Your task to perform on an android device: Show the shopping cart on bestbuy. Image 0: 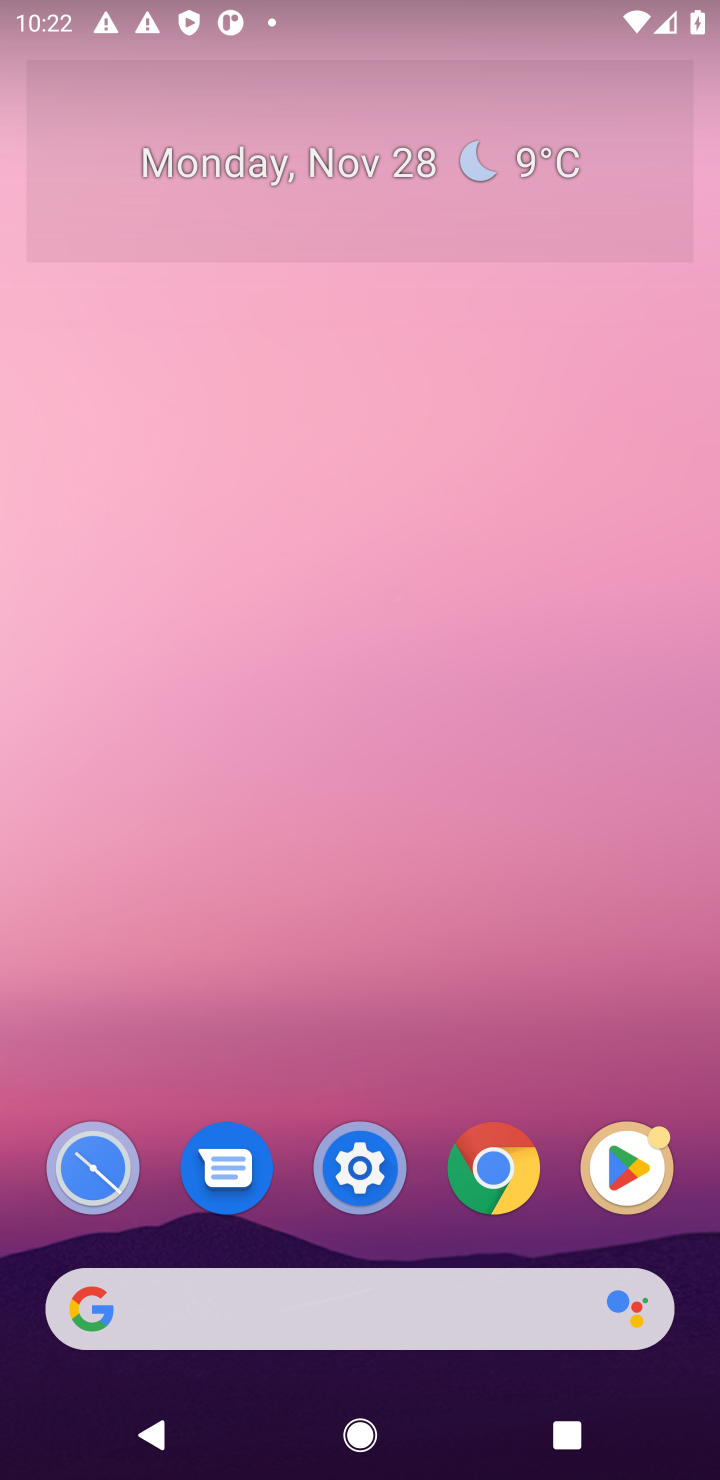
Step 0: click (445, 1349)
Your task to perform on an android device: Show the shopping cart on bestbuy. Image 1: 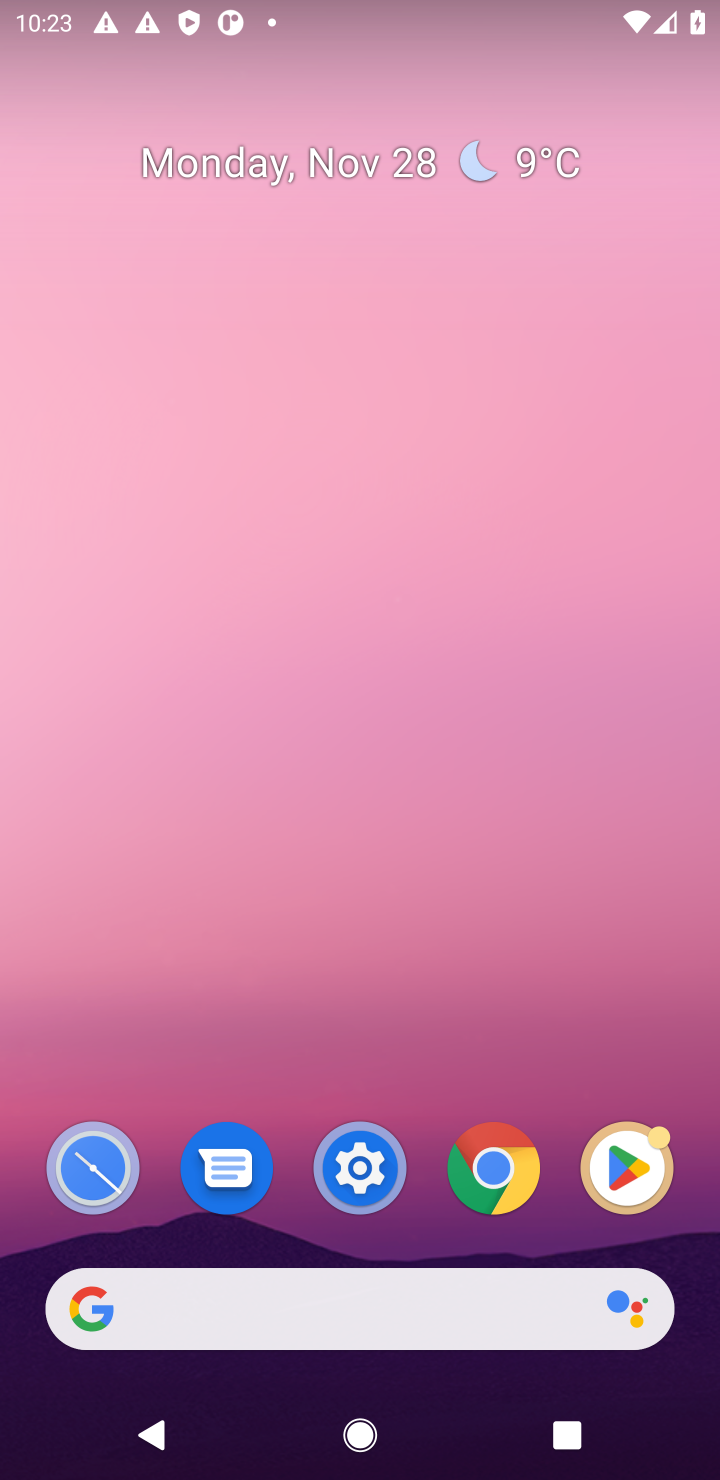
Step 1: click (425, 1332)
Your task to perform on an android device: Show the shopping cart on bestbuy. Image 2: 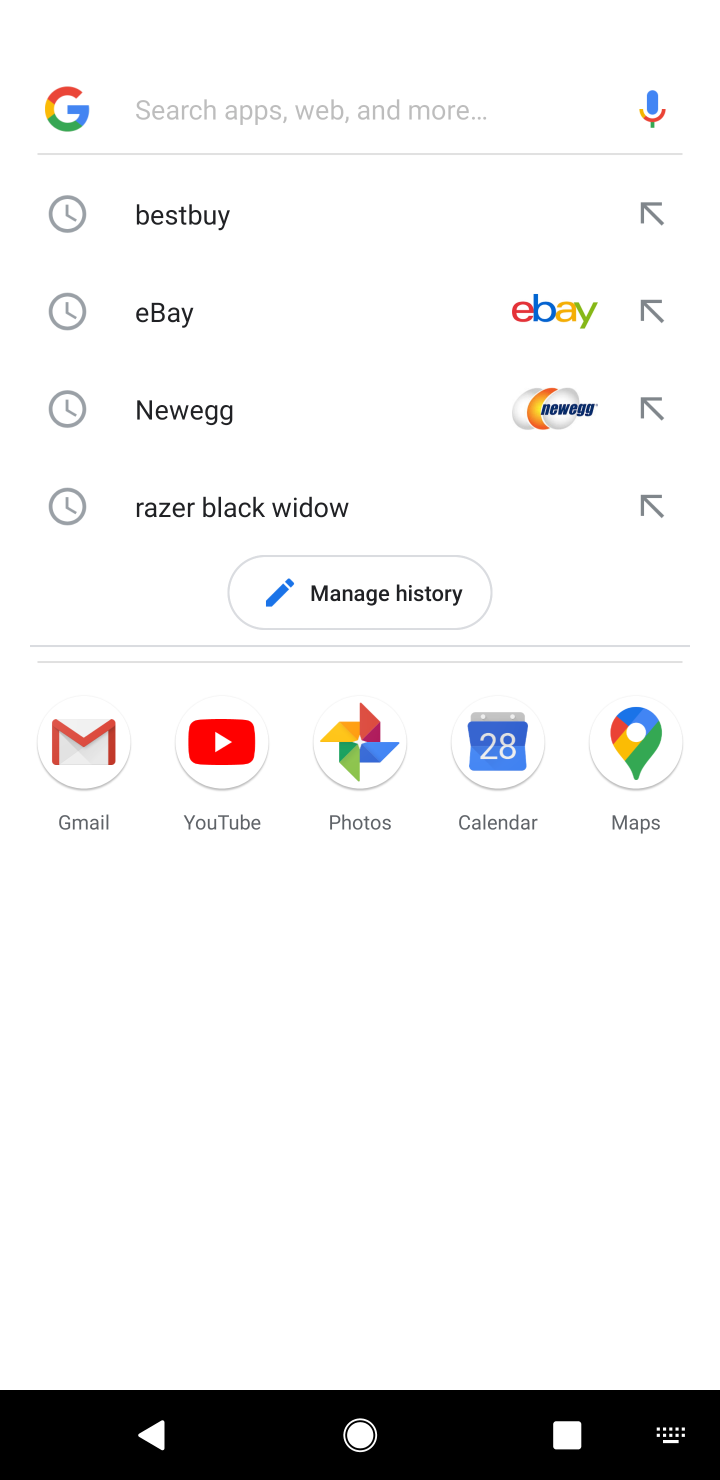
Step 2: type "bestbuy.com"
Your task to perform on an android device: Show the shopping cart on bestbuy. Image 3: 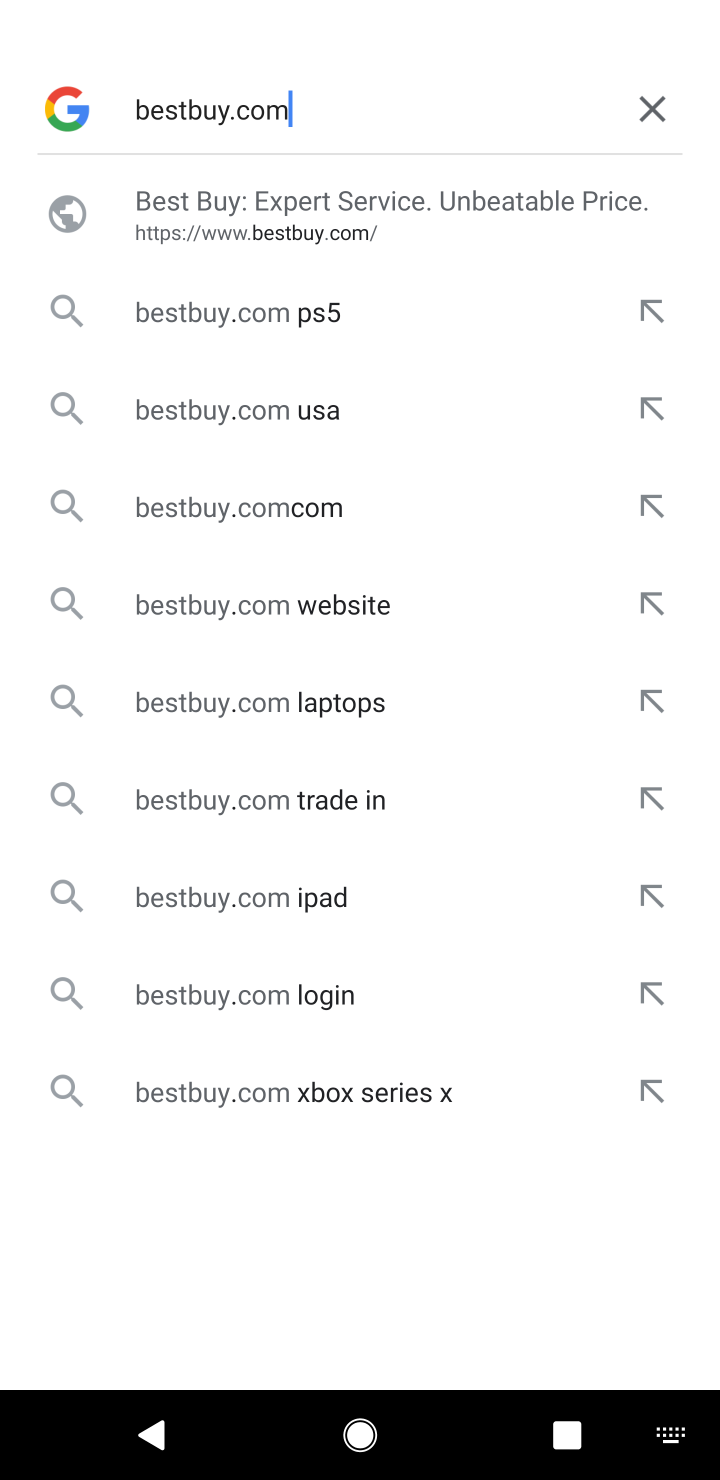
Step 3: click (192, 223)
Your task to perform on an android device: Show the shopping cart on bestbuy. Image 4: 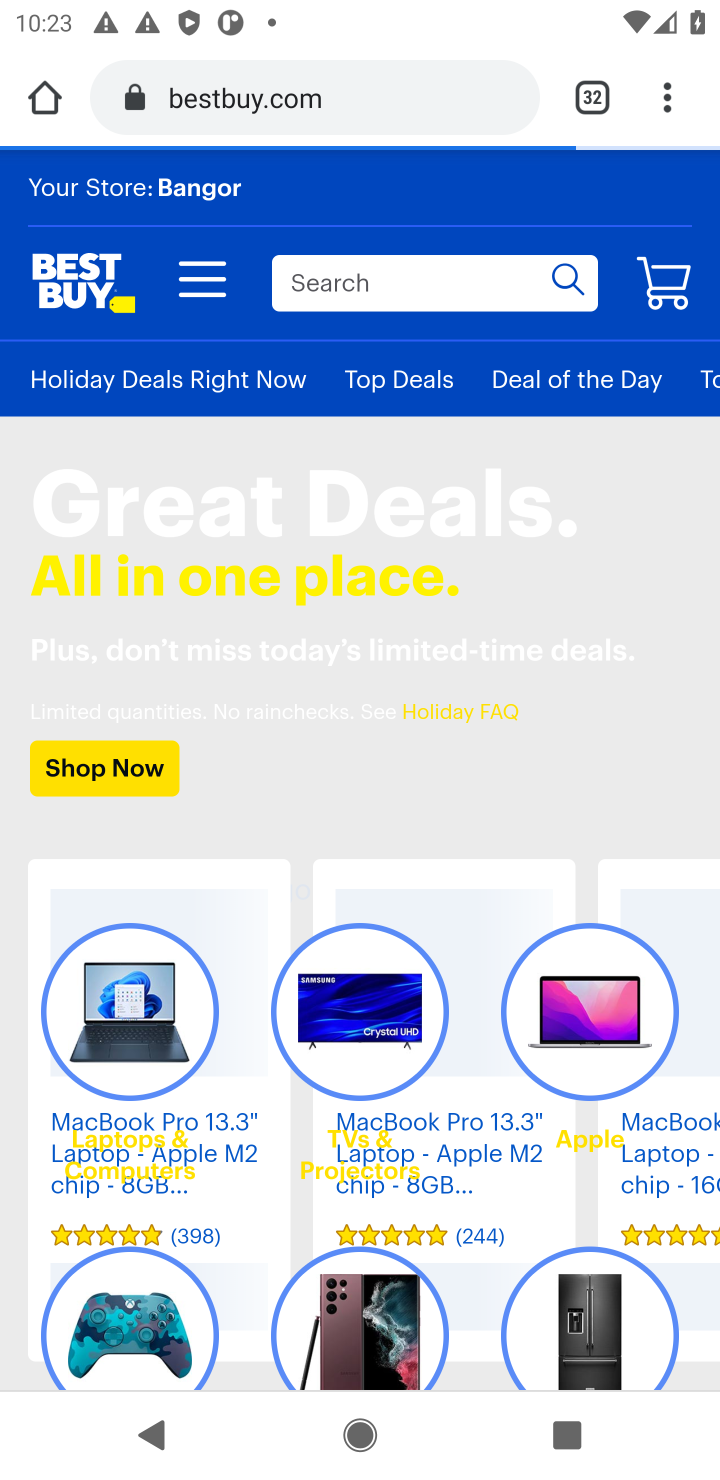
Step 4: click (371, 295)
Your task to perform on an android device: Show the shopping cart on bestbuy. Image 5: 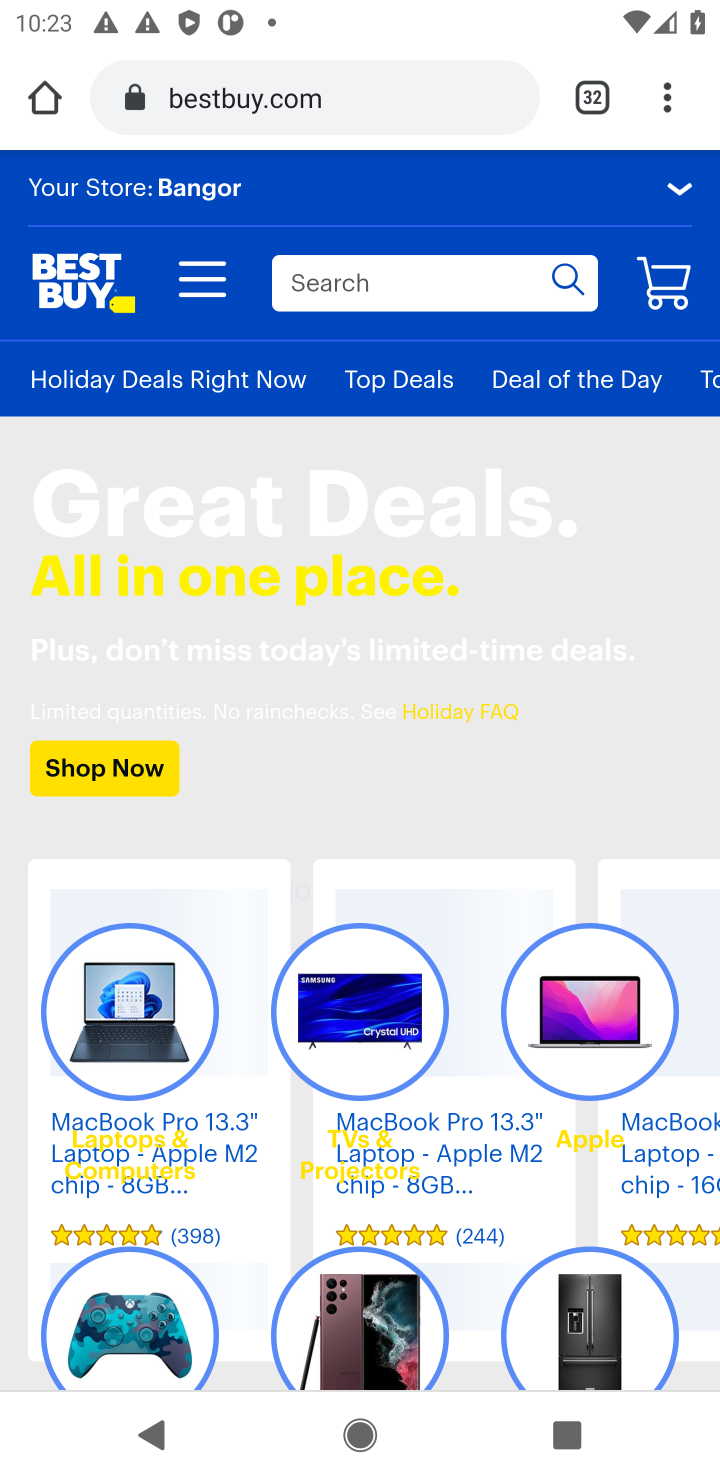
Step 5: click (654, 269)
Your task to perform on an android device: Show the shopping cart on bestbuy. Image 6: 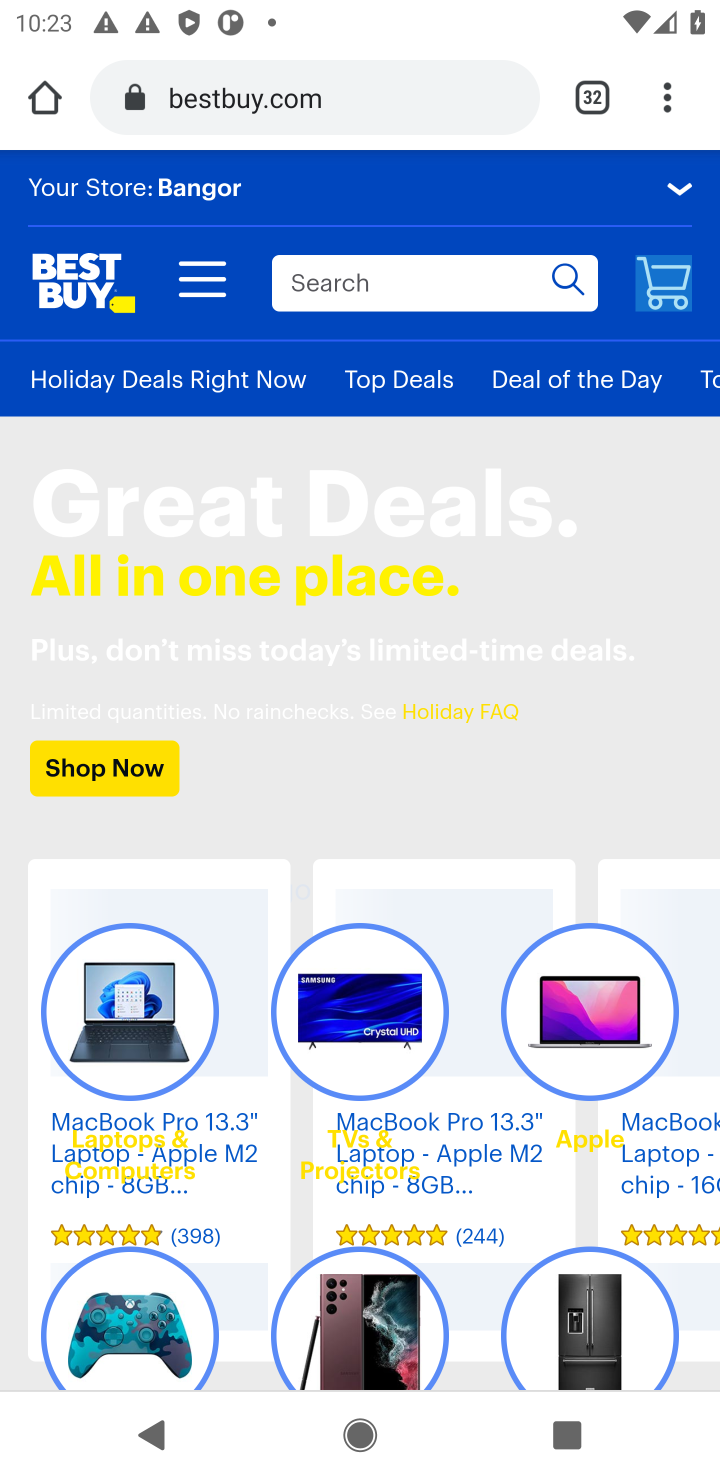
Step 6: task complete